Your task to perform on an android device: Open calendar and show me the second week of next month Image 0: 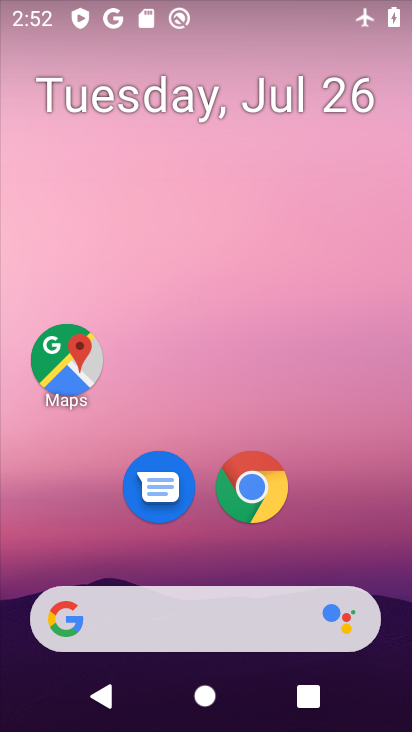
Step 0: drag from (242, 547) to (338, 26)
Your task to perform on an android device: Open calendar and show me the second week of next month Image 1: 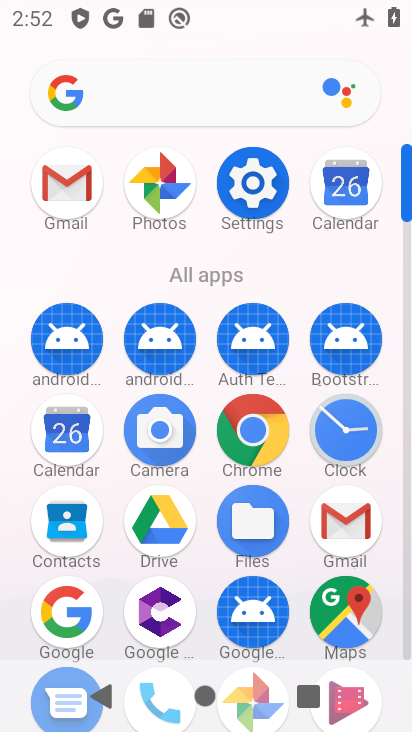
Step 1: click (77, 444)
Your task to perform on an android device: Open calendar and show me the second week of next month Image 2: 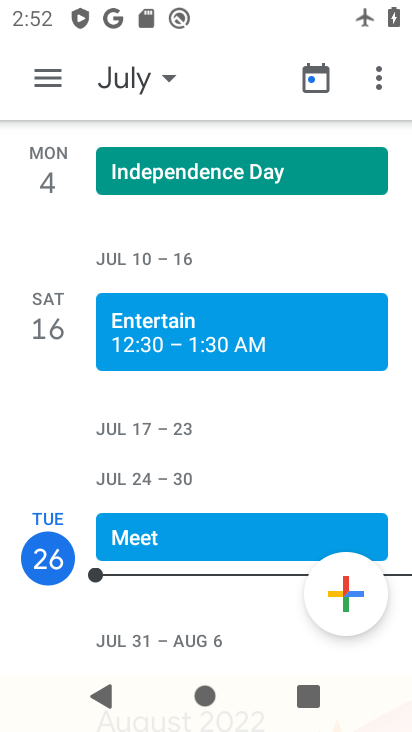
Step 2: click (174, 73)
Your task to perform on an android device: Open calendar and show me the second week of next month Image 3: 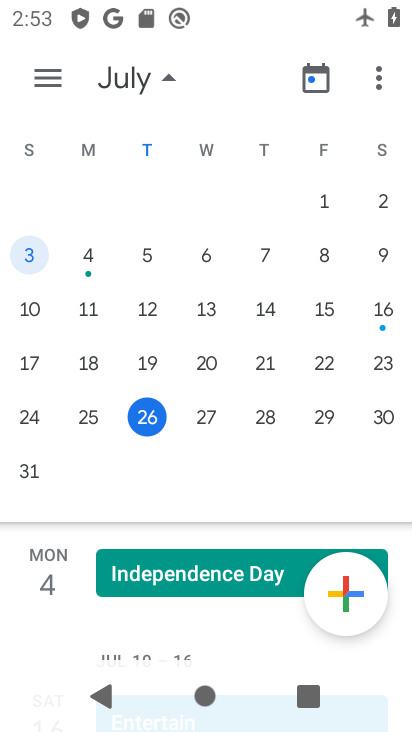
Step 3: drag from (382, 310) to (6, 339)
Your task to perform on an android device: Open calendar and show me the second week of next month Image 4: 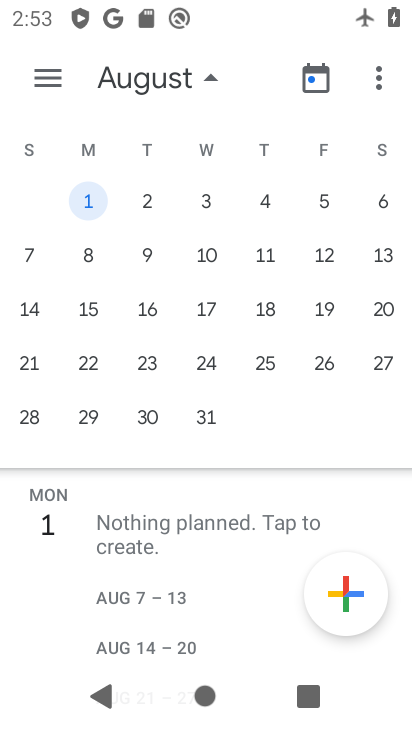
Step 4: click (88, 252)
Your task to perform on an android device: Open calendar and show me the second week of next month Image 5: 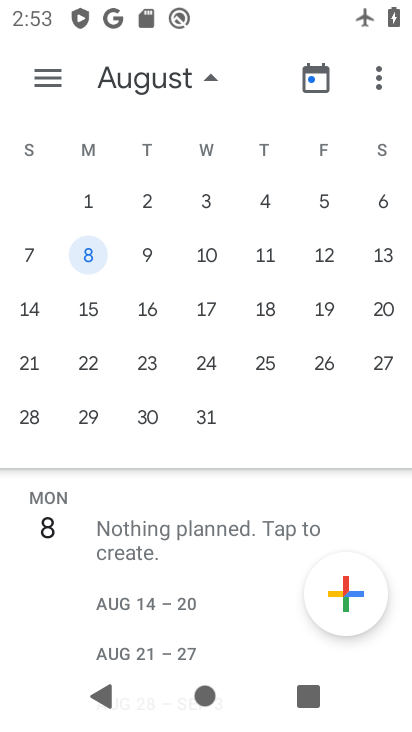
Step 5: task complete